Your task to perform on an android device: Open calendar and show me the second week of next month Image 0: 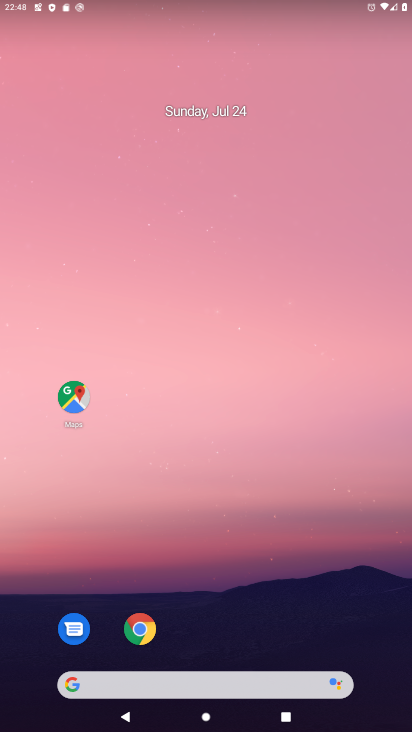
Step 0: drag from (217, 644) to (248, 230)
Your task to perform on an android device: Open calendar and show me the second week of next month Image 1: 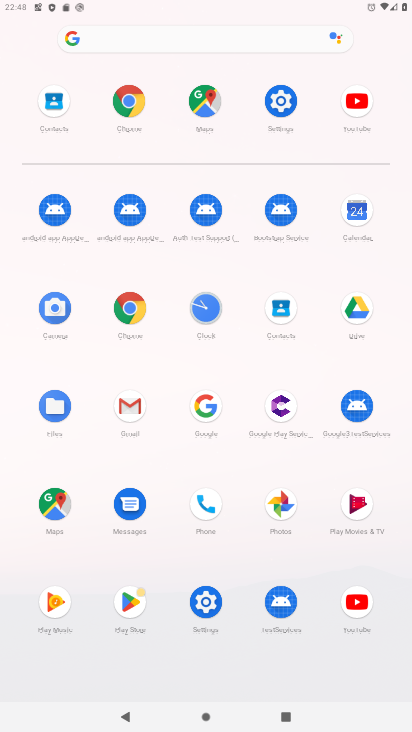
Step 1: click (360, 206)
Your task to perform on an android device: Open calendar and show me the second week of next month Image 2: 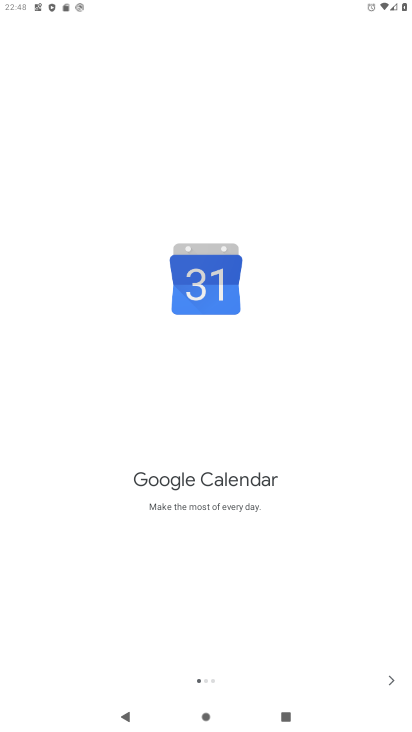
Step 2: click (388, 668)
Your task to perform on an android device: Open calendar and show me the second week of next month Image 3: 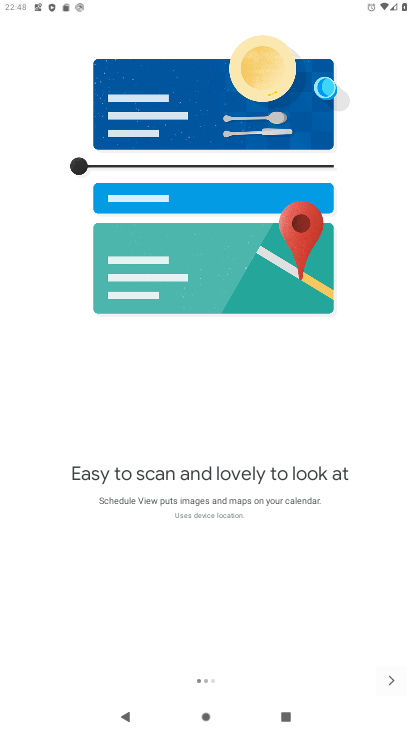
Step 3: click (387, 669)
Your task to perform on an android device: Open calendar and show me the second week of next month Image 4: 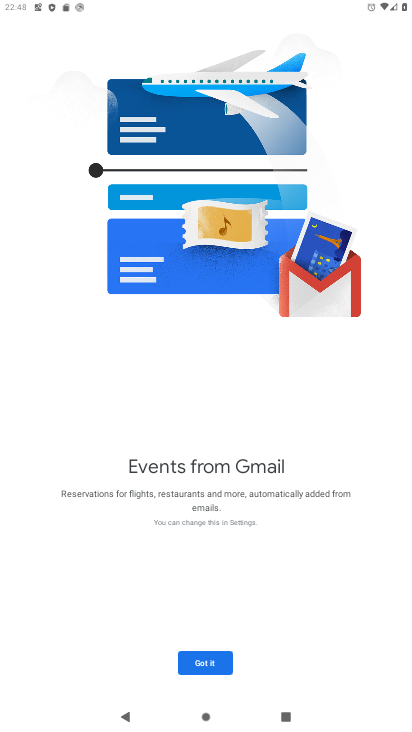
Step 4: click (200, 651)
Your task to perform on an android device: Open calendar and show me the second week of next month Image 5: 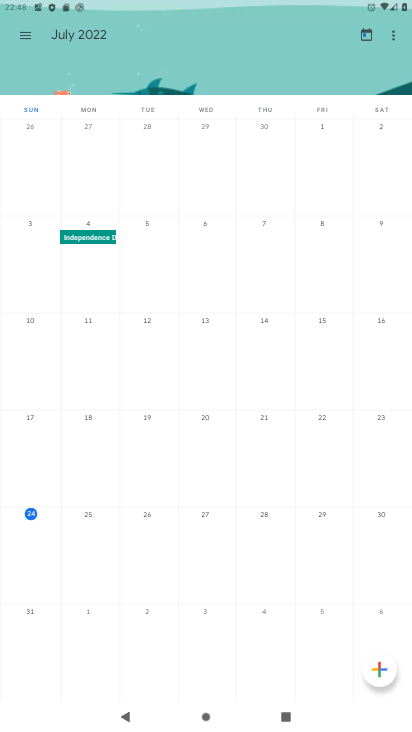
Step 5: click (360, 36)
Your task to perform on an android device: Open calendar and show me the second week of next month Image 6: 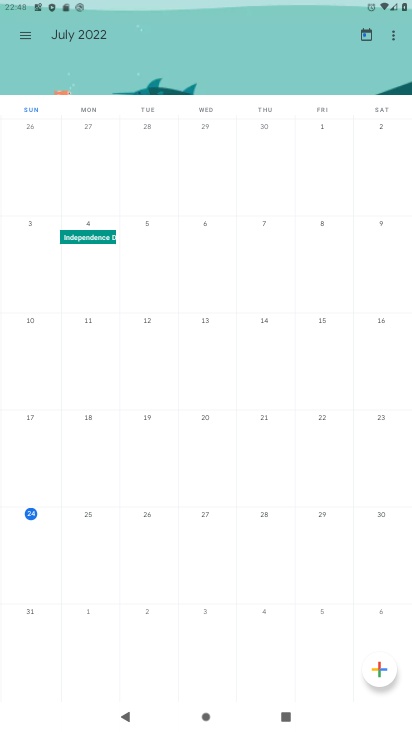
Step 6: drag from (325, 547) to (4, 625)
Your task to perform on an android device: Open calendar and show me the second week of next month Image 7: 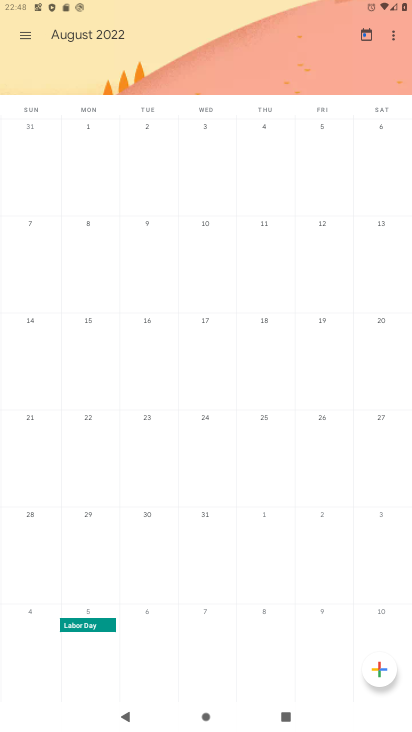
Step 7: click (264, 226)
Your task to perform on an android device: Open calendar and show me the second week of next month Image 8: 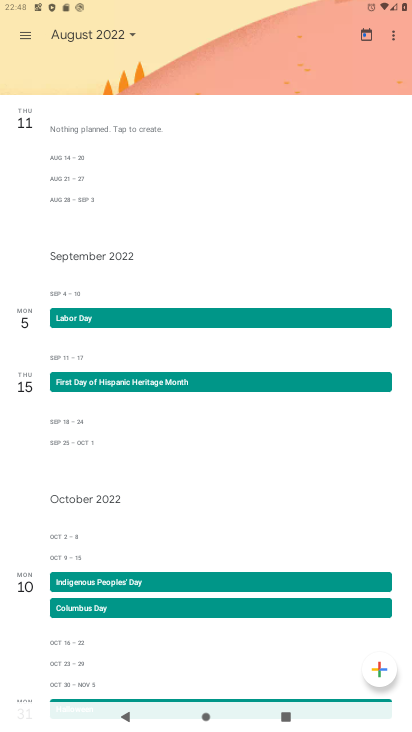
Step 8: task complete